Your task to perform on an android device: Go to ESPN.com Image 0: 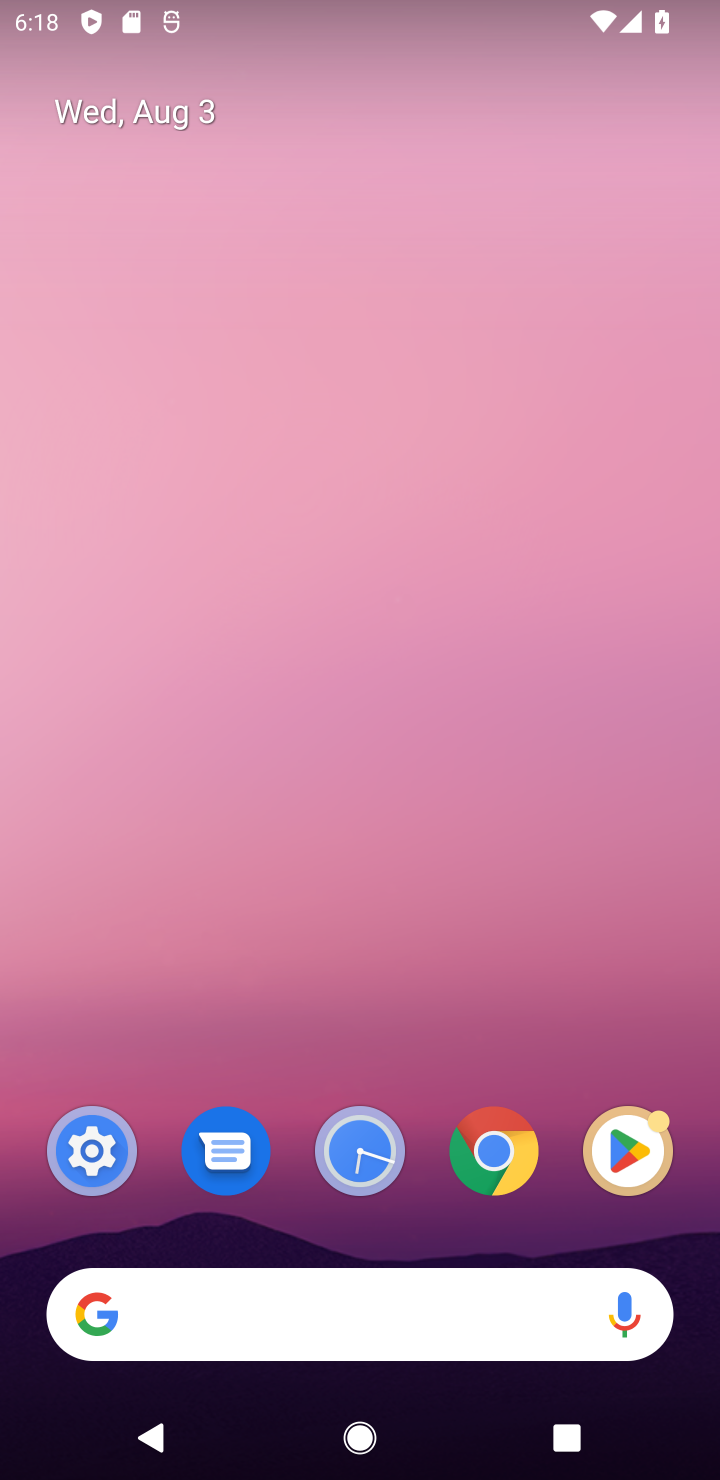
Step 0: click (507, 1145)
Your task to perform on an android device: Go to ESPN.com Image 1: 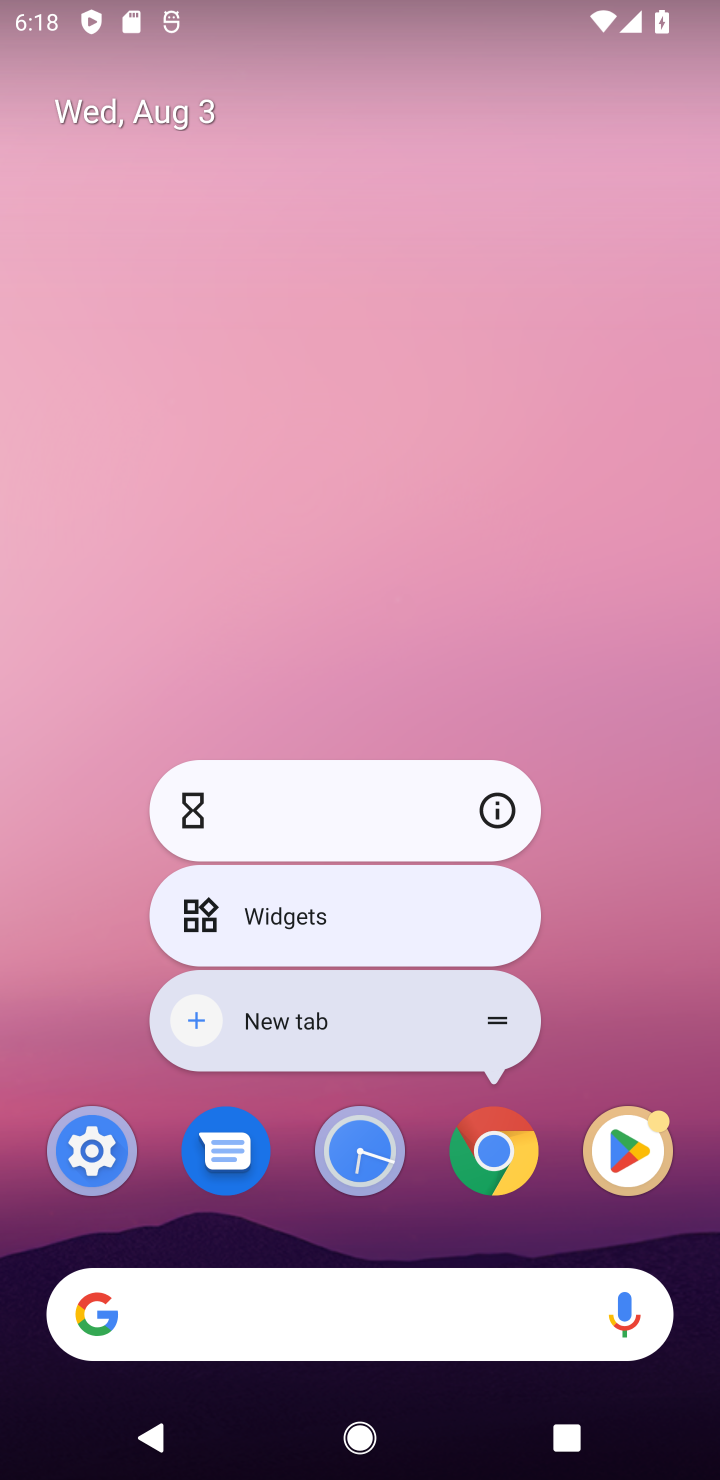
Step 1: click (497, 1138)
Your task to perform on an android device: Go to ESPN.com Image 2: 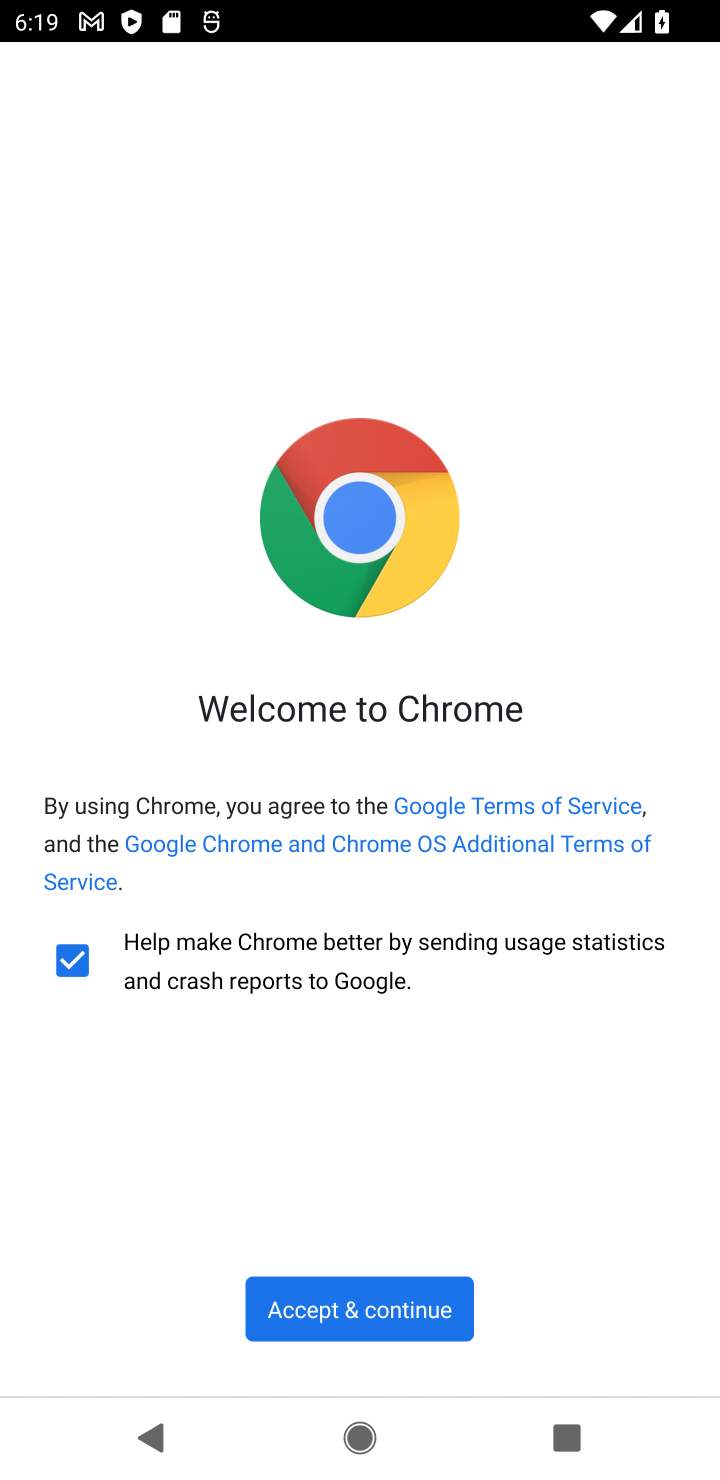
Step 2: click (385, 1310)
Your task to perform on an android device: Go to ESPN.com Image 3: 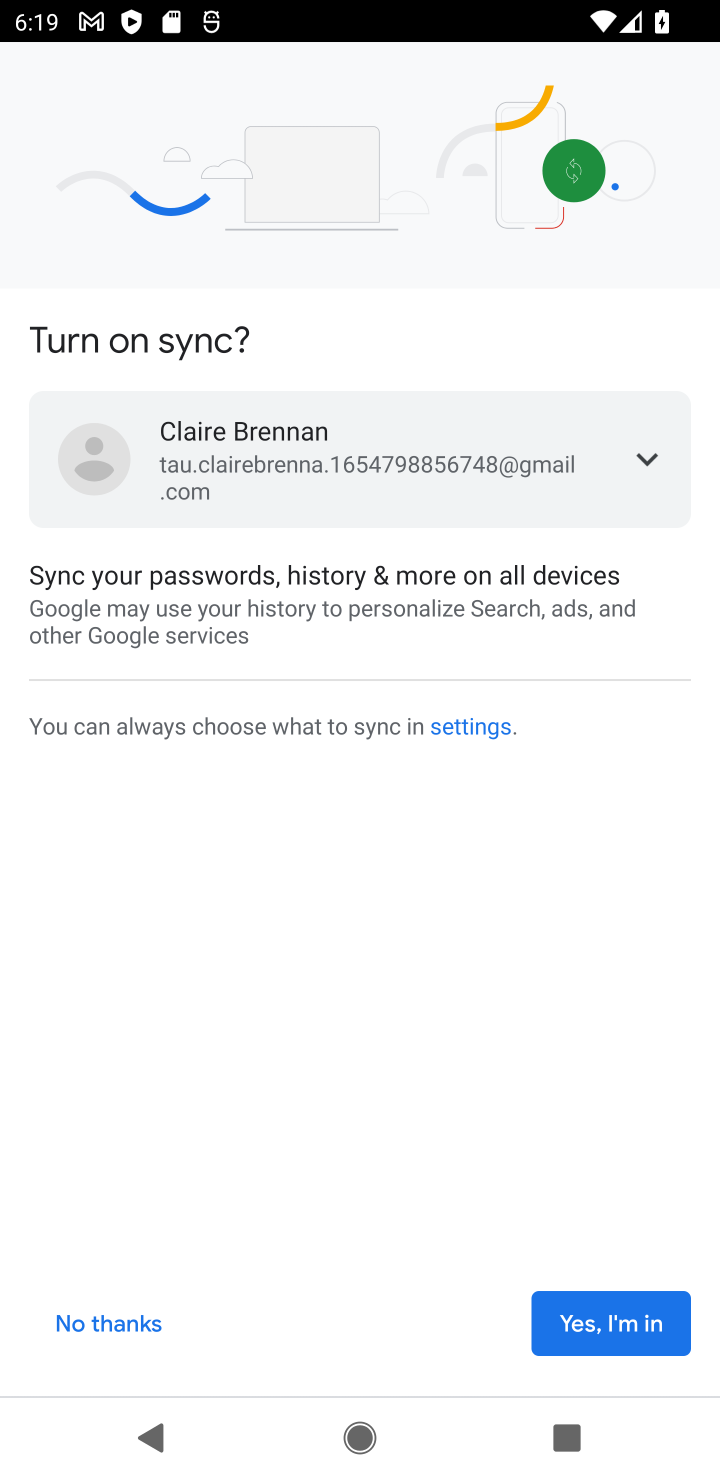
Step 3: click (637, 1315)
Your task to perform on an android device: Go to ESPN.com Image 4: 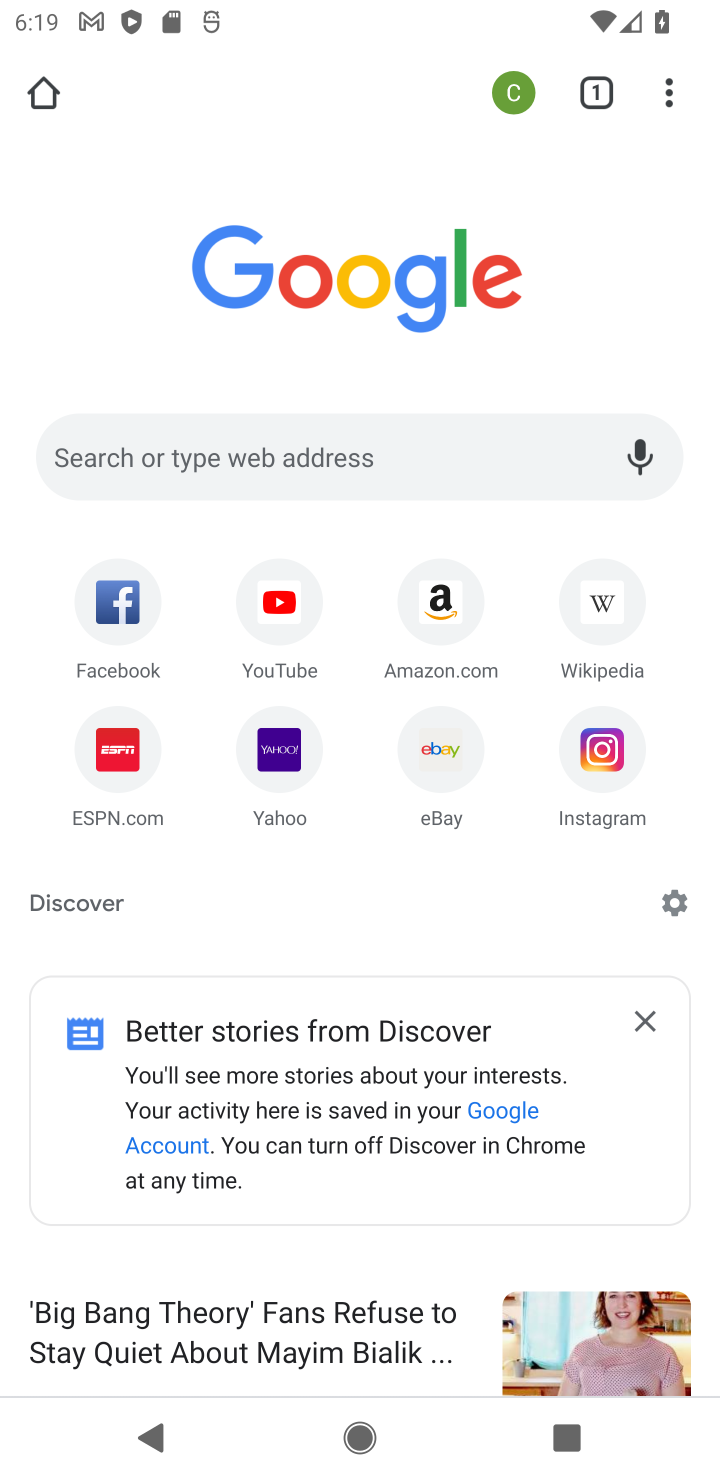
Step 4: click (116, 741)
Your task to perform on an android device: Go to ESPN.com Image 5: 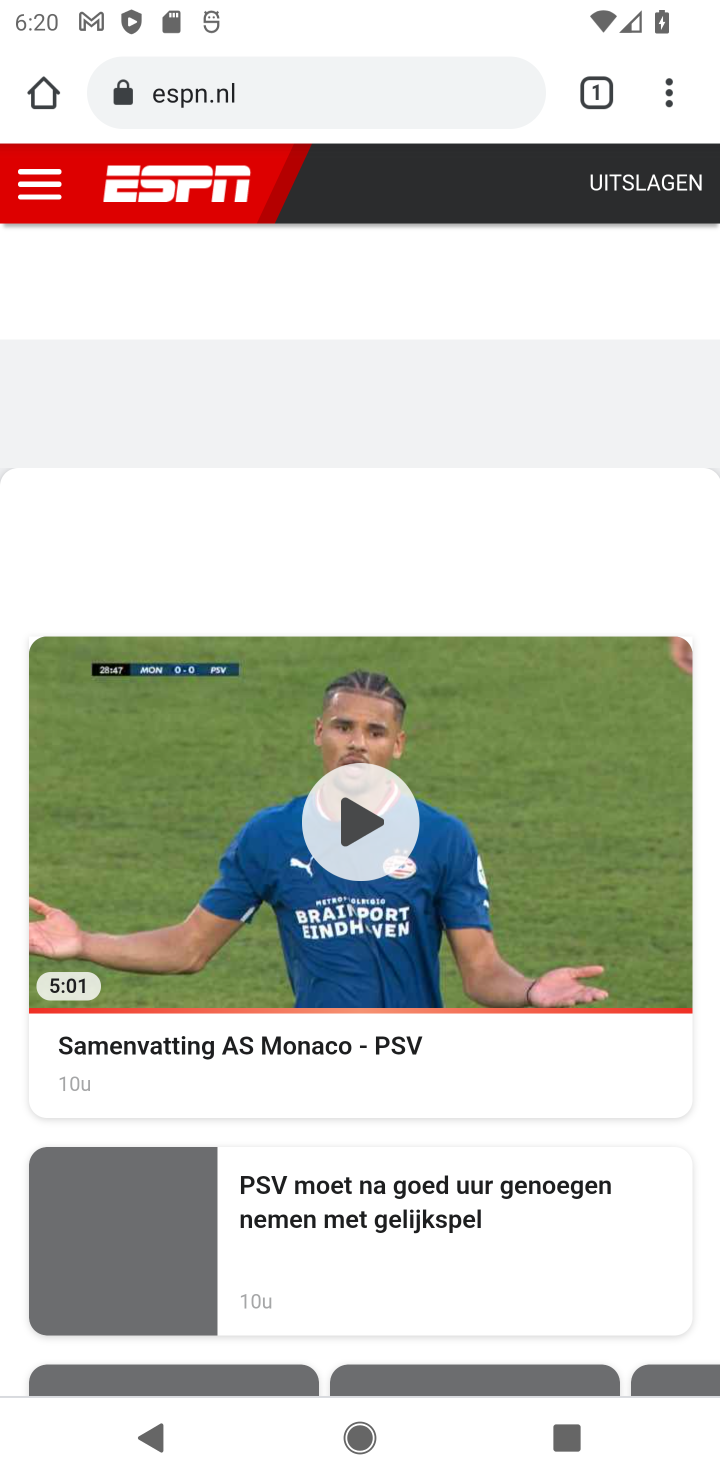
Step 5: task complete